Your task to perform on an android device: Open Amazon Image 0: 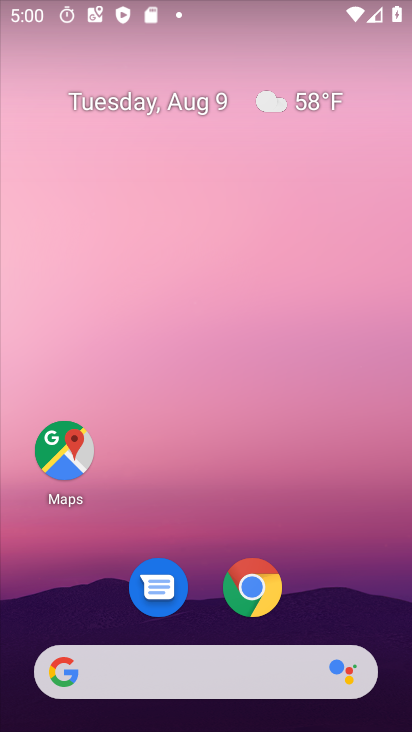
Step 0: click (255, 593)
Your task to perform on an android device: Open Amazon Image 1: 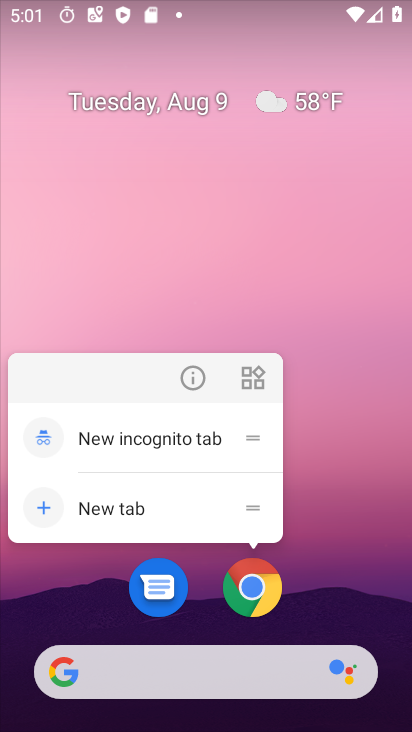
Step 1: click (265, 598)
Your task to perform on an android device: Open Amazon Image 2: 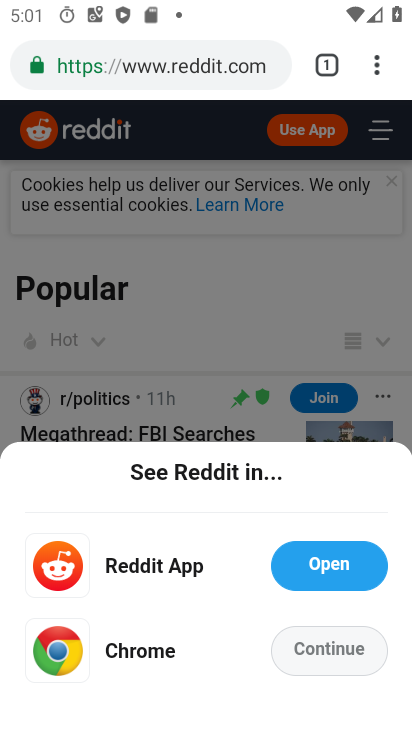
Step 2: click (227, 71)
Your task to perform on an android device: Open Amazon Image 3: 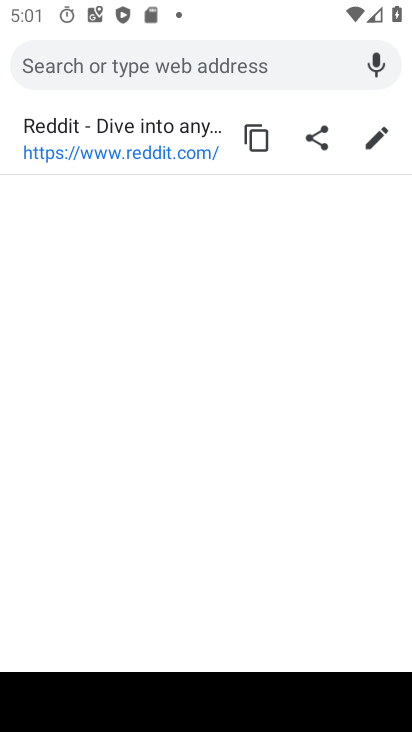
Step 3: type "amazon"
Your task to perform on an android device: Open Amazon Image 4: 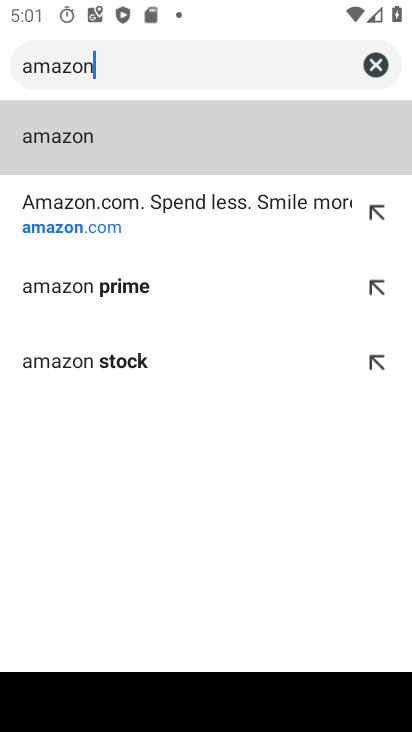
Step 4: click (128, 217)
Your task to perform on an android device: Open Amazon Image 5: 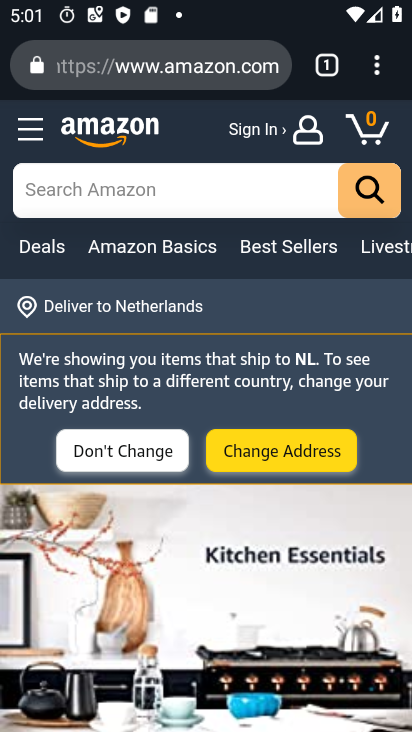
Step 5: task complete